Your task to perform on an android device: Open Amazon Image 0: 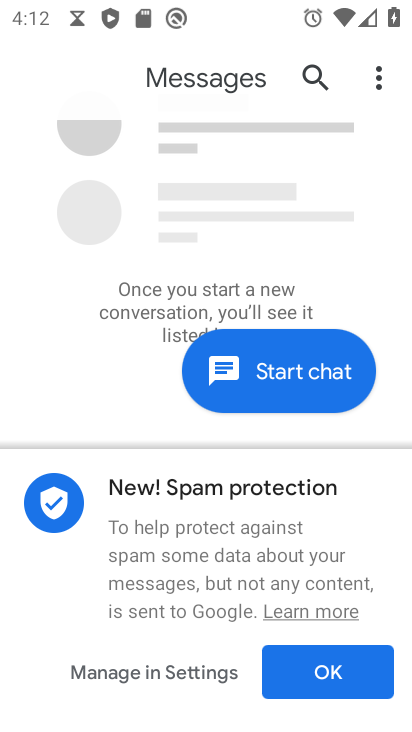
Step 0: press home button
Your task to perform on an android device: Open Amazon Image 1: 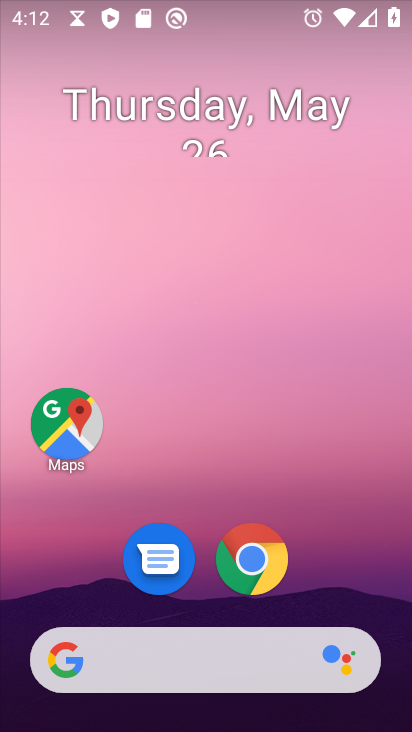
Step 1: click (248, 564)
Your task to perform on an android device: Open Amazon Image 2: 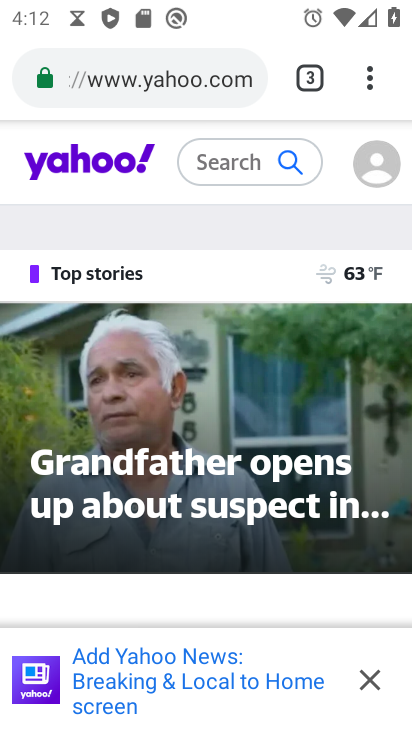
Step 2: click (310, 73)
Your task to perform on an android device: Open Amazon Image 3: 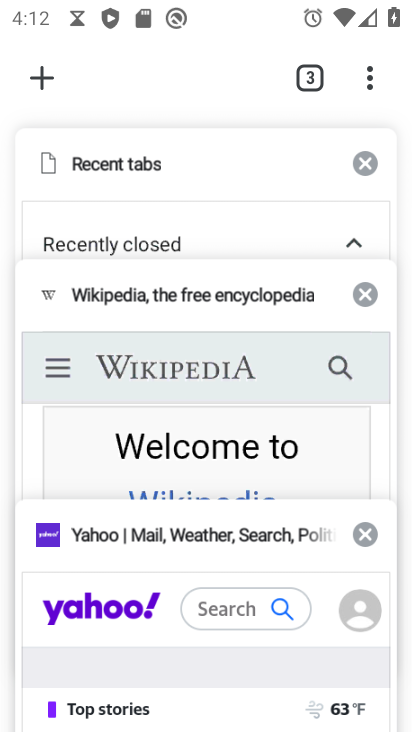
Step 3: click (25, 82)
Your task to perform on an android device: Open Amazon Image 4: 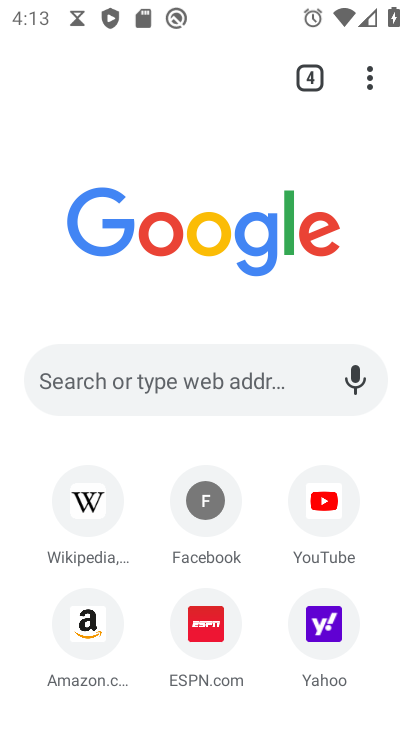
Step 4: click (88, 619)
Your task to perform on an android device: Open Amazon Image 5: 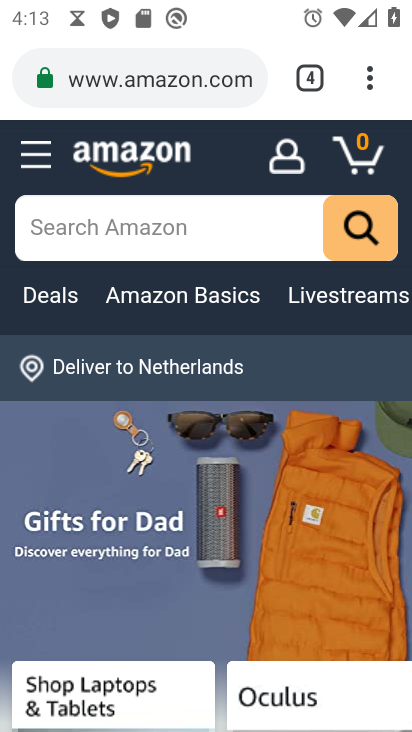
Step 5: task complete